Your task to perform on an android device: Search for pizza restaurants on Maps Image 0: 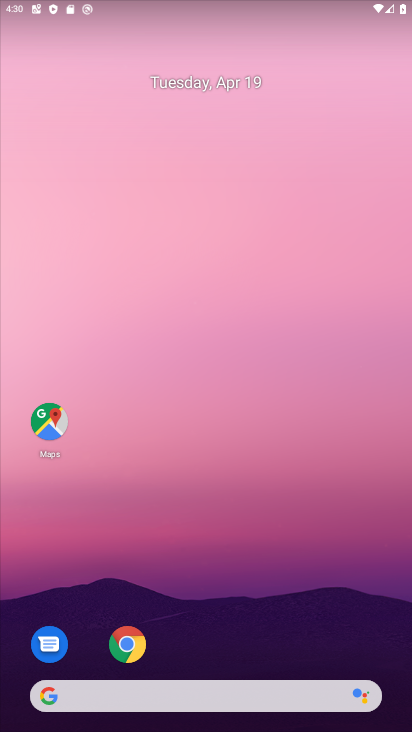
Step 0: click (53, 416)
Your task to perform on an android device: Search for pizza restaurants on Maps Image 1: 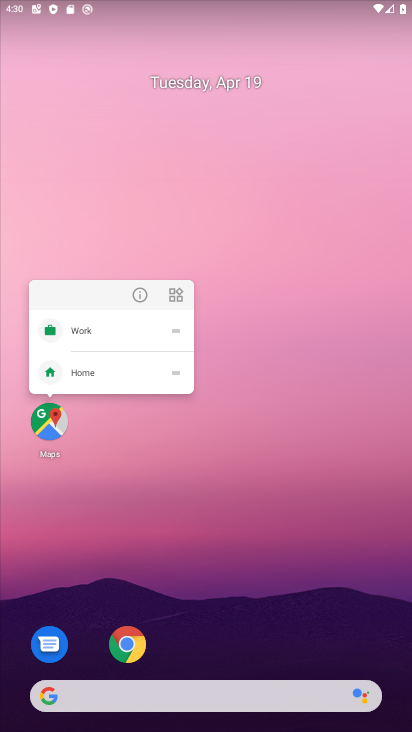
Step 1: click (43, 432)
Your task to perform on an android device: Search for pizza restaurants on Maps Image 2: 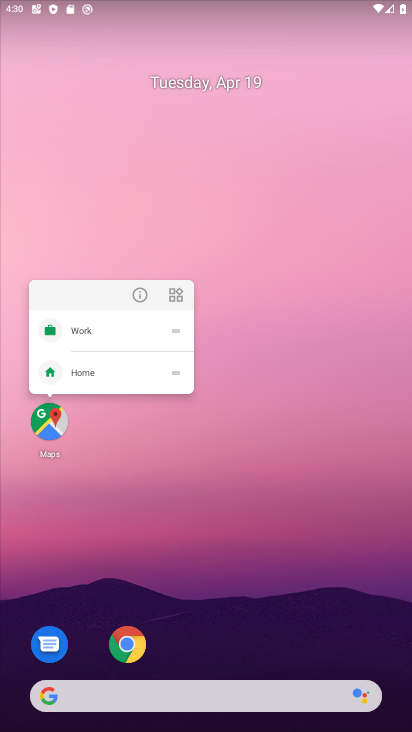
Step 2: click (41, 422)
Your task to perform on an android device: Search for pizza restaurants on Maps Image 3: 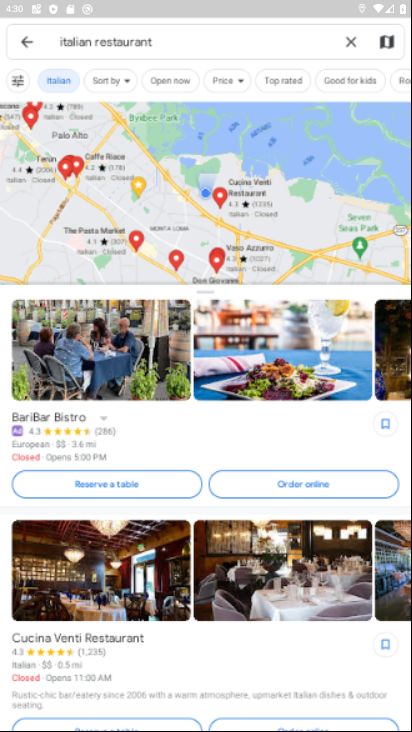
Step 3: click (352, 44)
Your task to perform on an android device: Search for pizza restaurants on Maps Image 4: 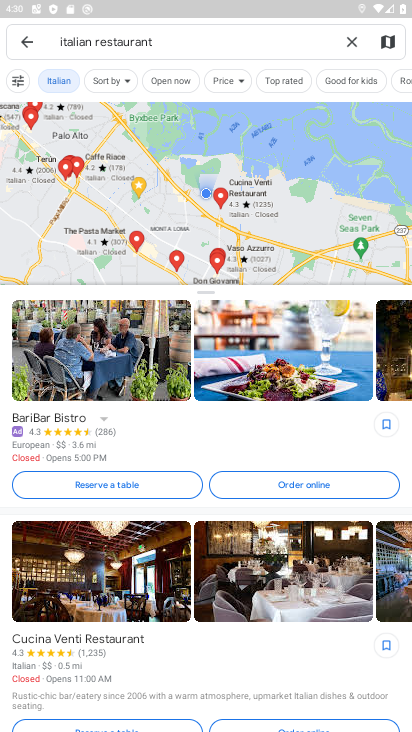
Step 4: click (354, 41)
Your task to perform on an android device: Search for pizza restaurants on Maps Image 5: 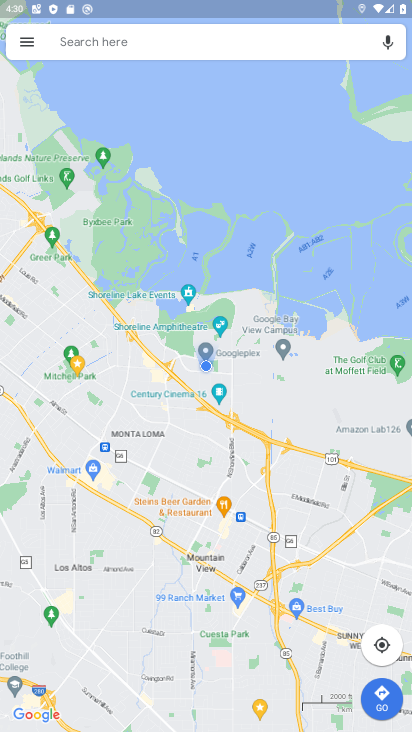
Step 5: click (216, 41)
Your task to perform on an android device: Search for pizza restaurants on Maps Image 6: 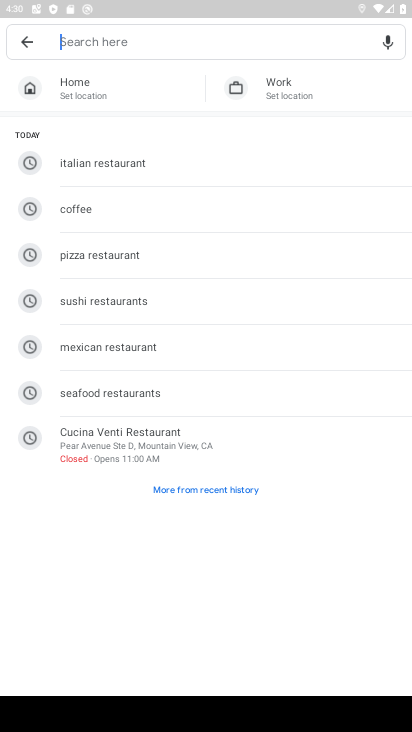
Step 6: click (84, 260)
Your task to perform on an android device: Search for pizza restaurants on Maps Image 7: 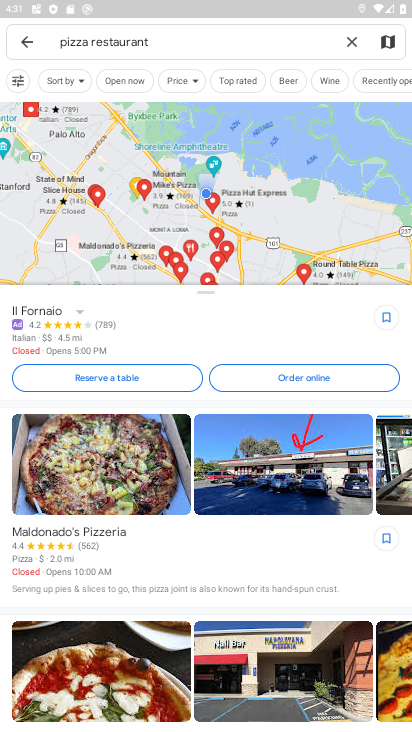
Step 7: task complete